Your task to perform on an android device: change the clock style Image 0: 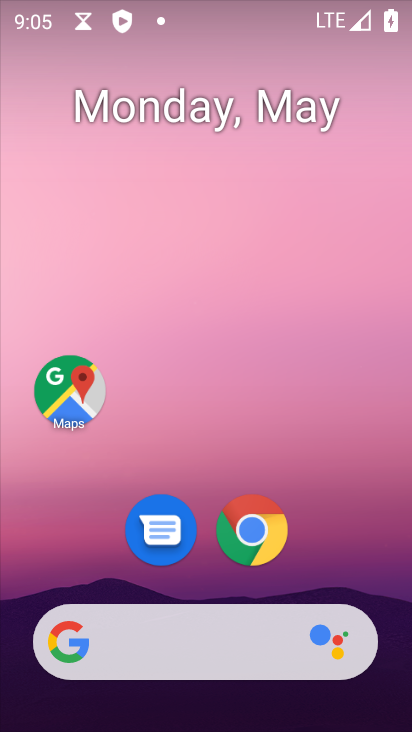
Step 0: drag from (369, 536) to (256, 20)
Your task to perform on an android device: change the clock style Image 1: 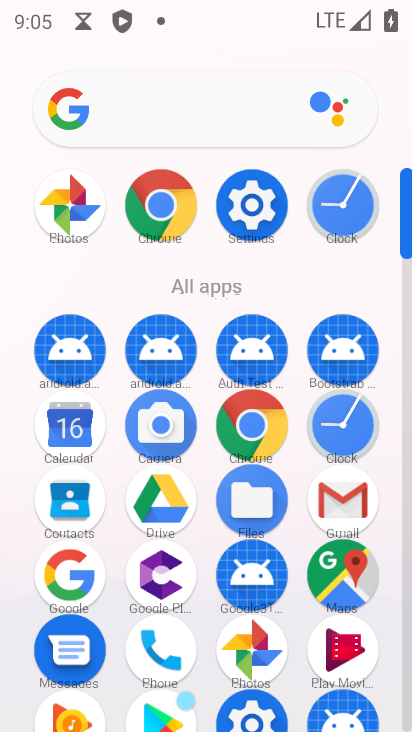
Step 1: drag from (19, 575) to (22, 251)
Your task to perform on an android device: change the clock style Image 2: 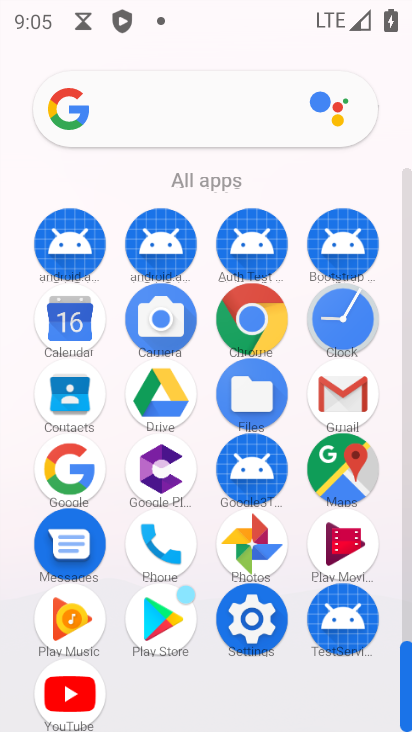
Step 2: click (343, 321)
Your task to perform on an android device: change the clock style Image 3: 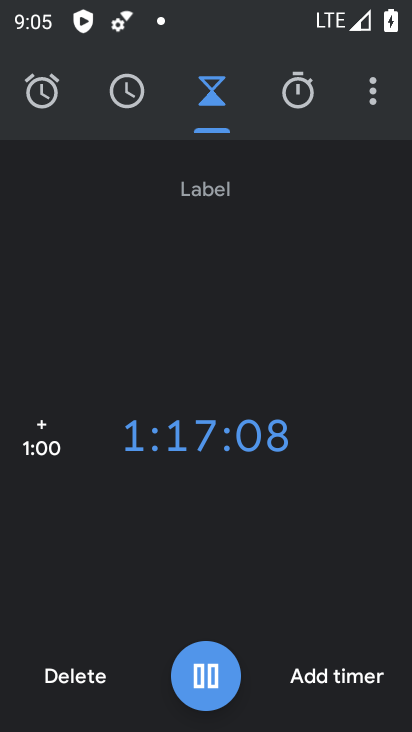
Step 3: drag from (376, 82) to (312, 172)
Your task to perform on an android device: change the clock style Image 4: 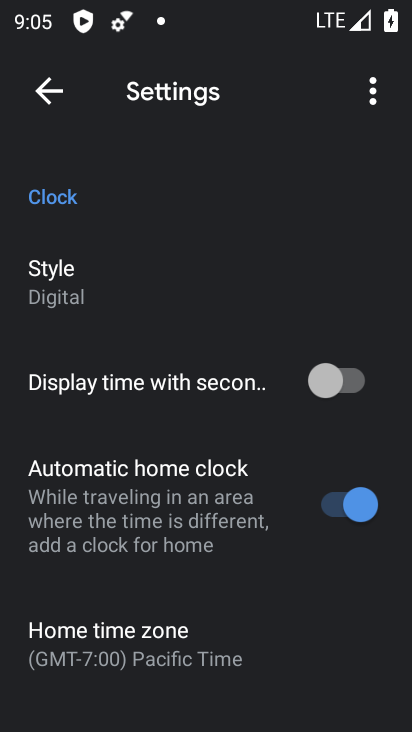
Step 4: click (189, 263)
Your task to perform on an android device: change the clock style Image 5: 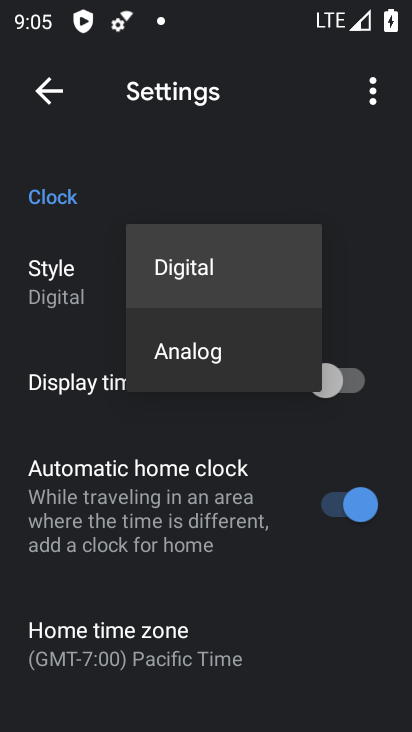
Step 5: click (200, 349)
Your task to perform on an android device: change the clock style Image 6: 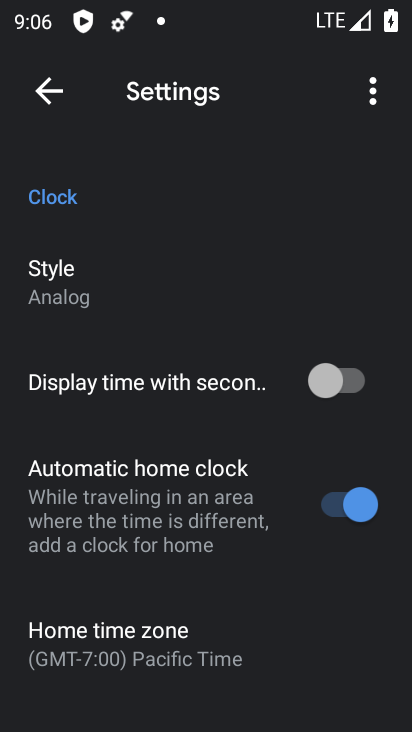
Step 6: task complete